Your task to perform on an android device: all mails in gmail Image 0: 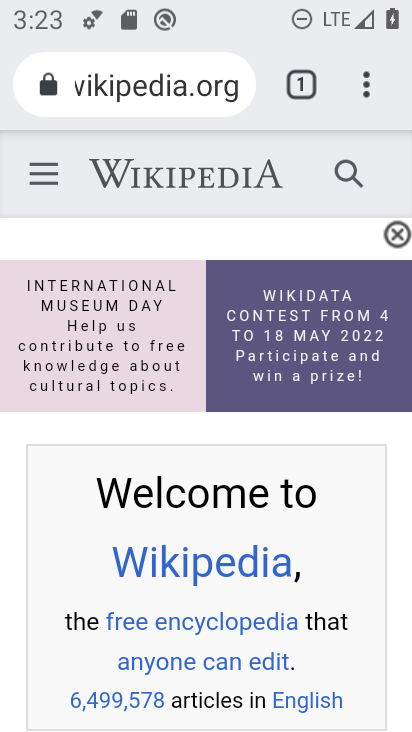
Step 0: press home button
Your task to perform on an android device: all mails in gmail Image 1: 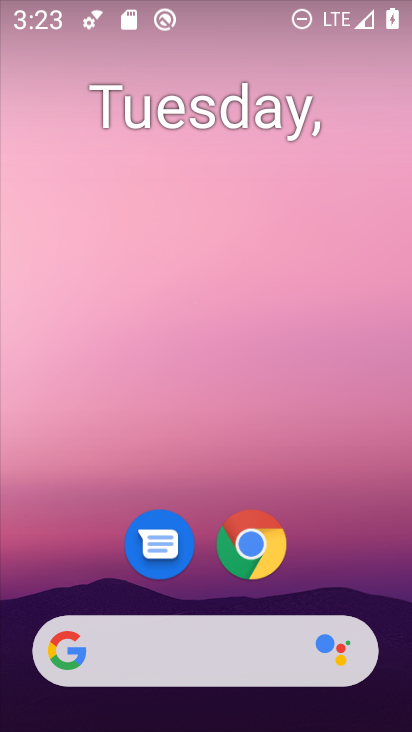
Step 1: drag from (366, 523) to (326, 102)
Your task to perform on an android device: all mails in gmail Image 2: 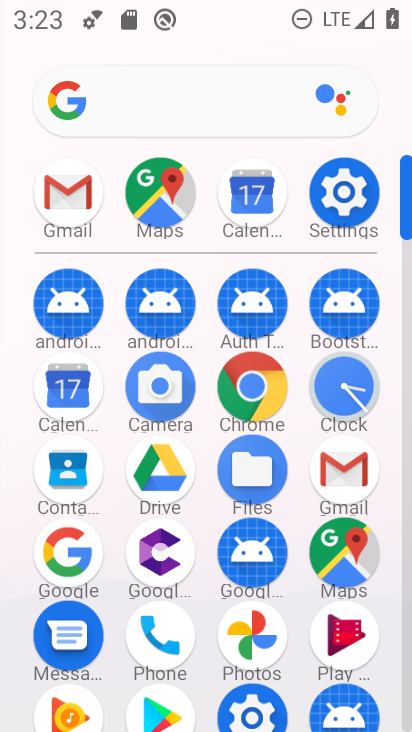
Step 2: click (357, 476)
Your task to perform on an android device: all mails in gmail Image 3: 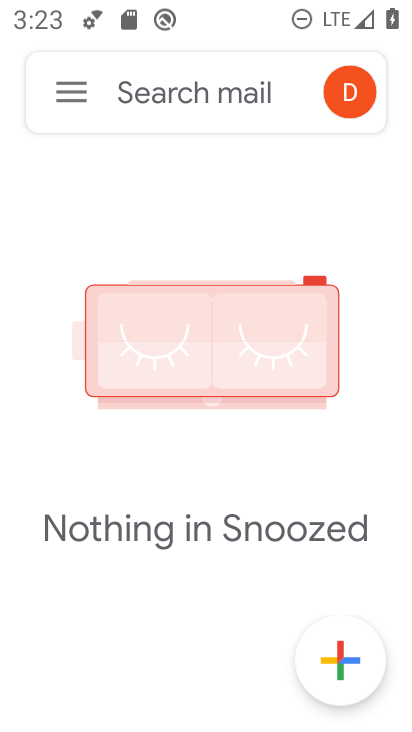
Step 3: click (75, 99)
Your task to perform on an android device: all mails in gmail Image 4: 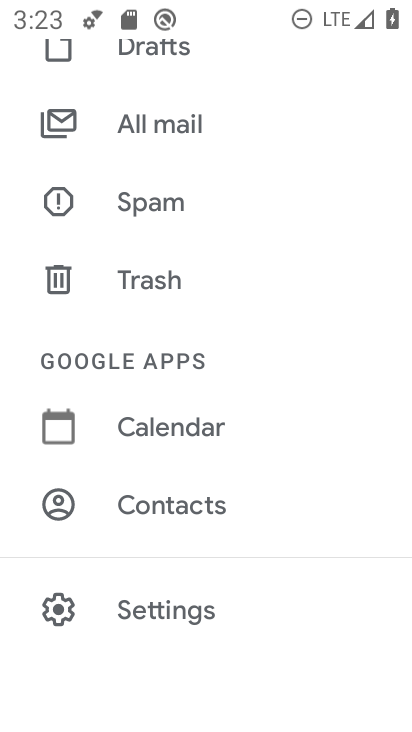
Step 4: drag from (316, 301) to (315, 410)
Your task to perform on an android device: all mails in gmail Image 5: 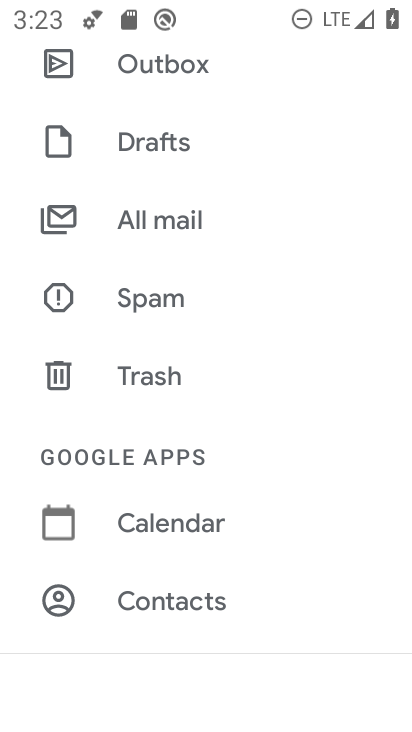
Step 5: drag from (323, 234) to (318, 348)
Your task to perform on an android device: all mails in gmail Image 6: 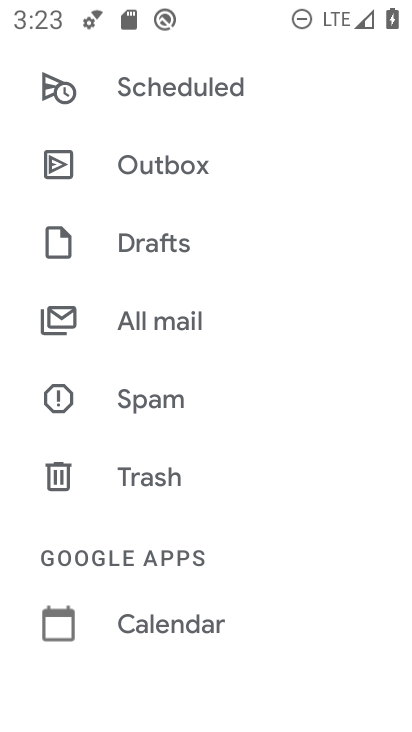
Step 6: drag from (322, 199) to (318, 337)
Your task to perform on an android device: all mails in gmail Image 7: 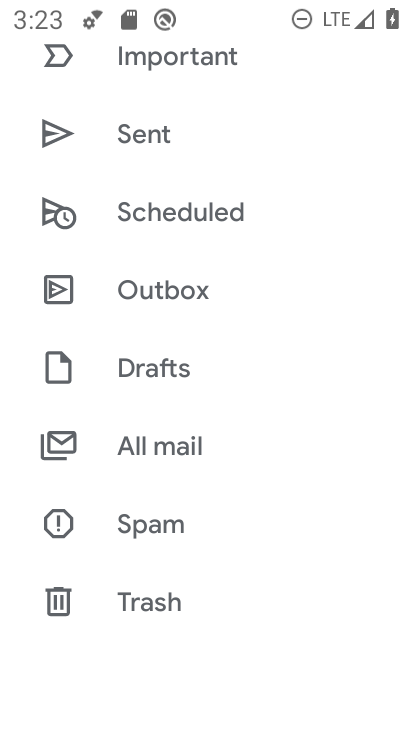
Step 7: drag from (314, 155) to (303, 285)
Your task to perform on an android device: all mails in gmail Image 8: 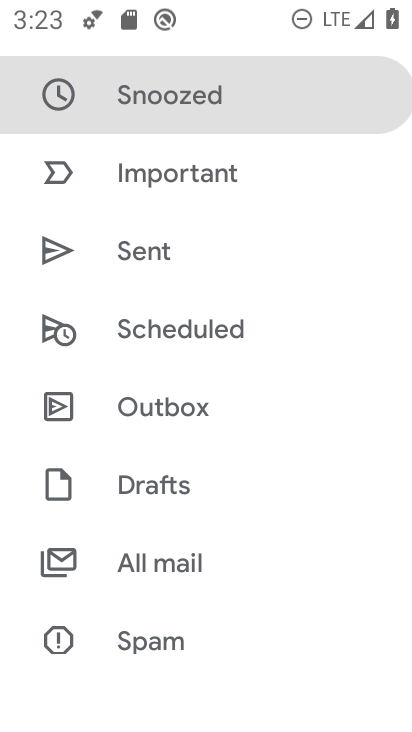
Step 8: drag from (305, 128) to (303, 284)
Your task to perform on an android device: all mails in gmail Image 9: 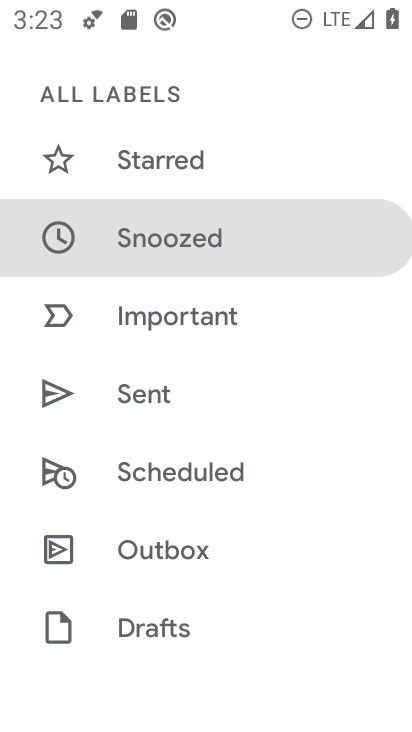
Step 9: drag from (310, 110) to (313, 248)
Your task to perform on an android device: all mails in gmail Image 10: 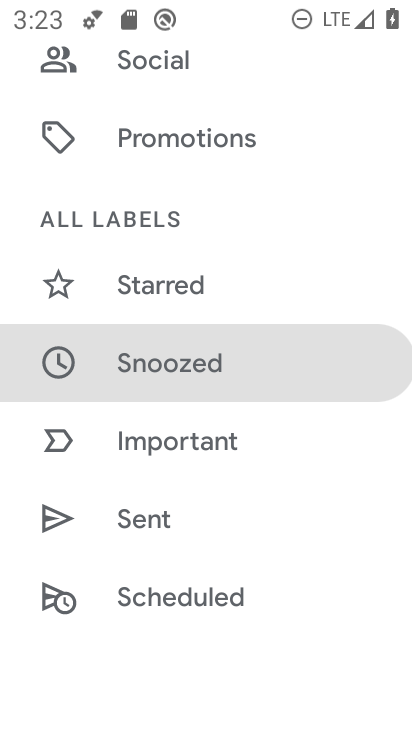
Step 10: drag from (312, 116) to (297, 276)
Your task to perform on an android device: all mails in gmail Image 11: 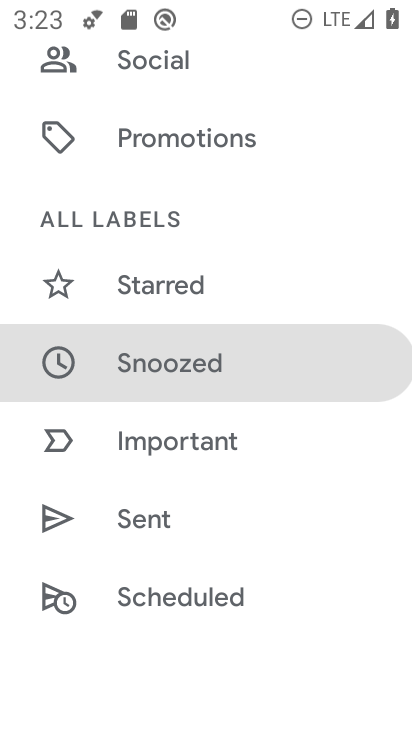
Step 11: drag from (305, 138) to (312, 292)
Your task to perform on an android device: all mails in gmail Image 12: 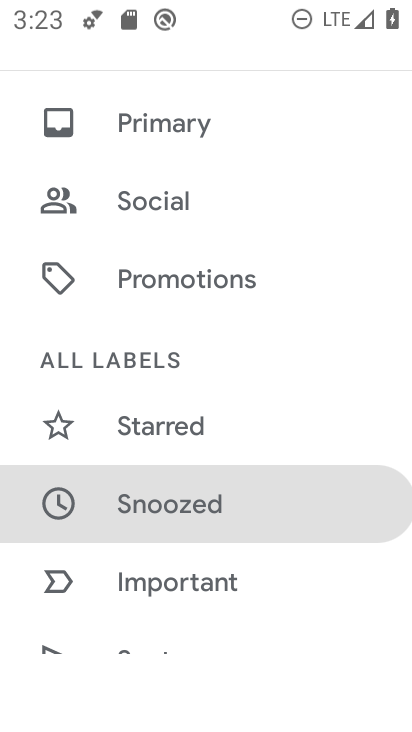
Step 12: drag from (339, 156) to (339, 359)
Your task to perform on an android device: all mails in gmail Image 13: 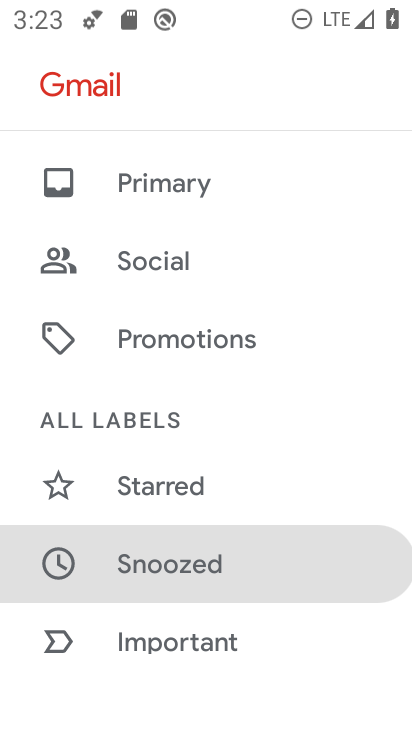
Step 13: drag from (320, 157) to (317, 373)
Your task to perform on an android device: all mails in gmail Image 14: 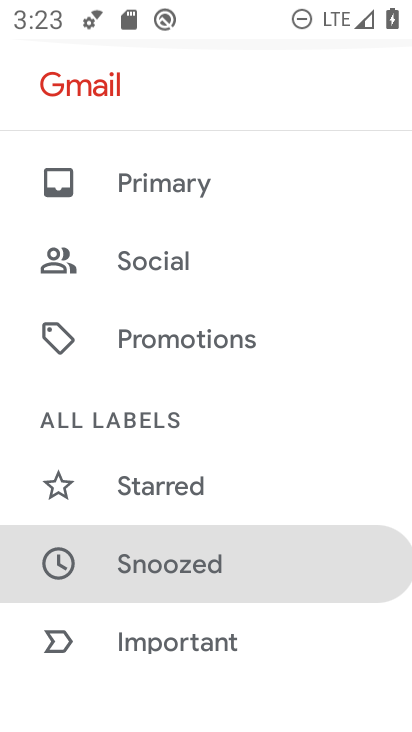
Step 14: drag from (320, 457) to (320, 305)
Your task to perform on an android device: all mails in gmail Image 15: 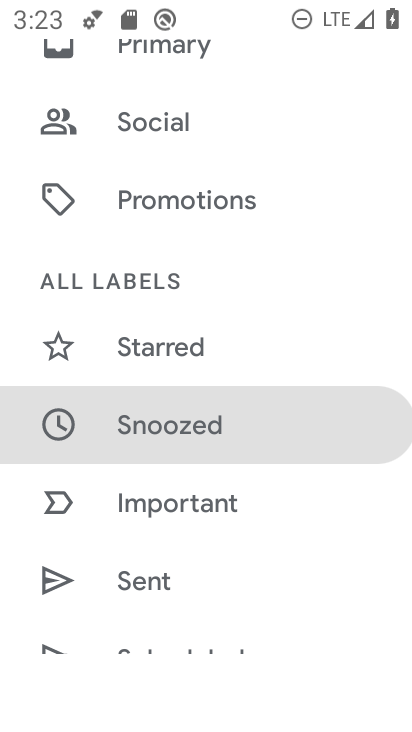
Step 15: drag from (304, 462) to (303, 282)
Your task to perform on an android device: all mails in gmail Image 16: 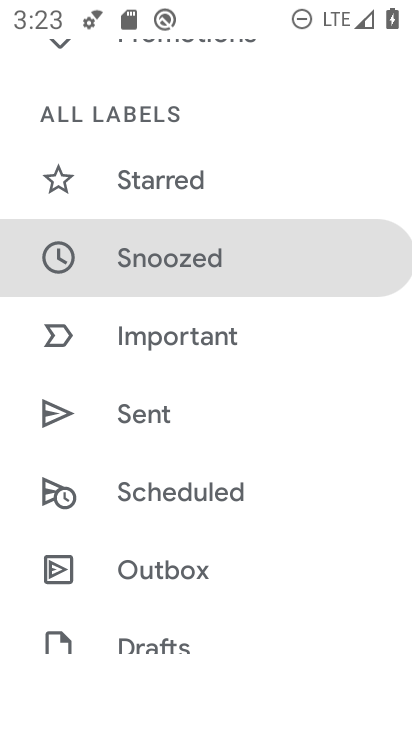
Step 16: drag from (322, 487) to (321, 363)
Your task to perform on an android device: all mails in gmail Image 17: 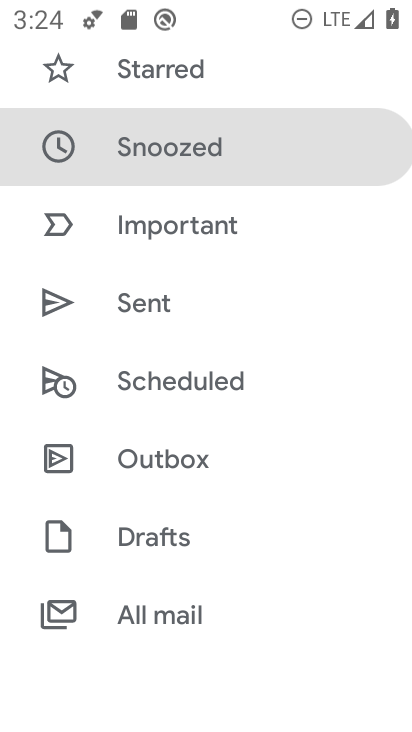
Step 17: drag from (311, 518) to (310, 396)
Your task to perform on an android device: all mails in gmail Image 18: 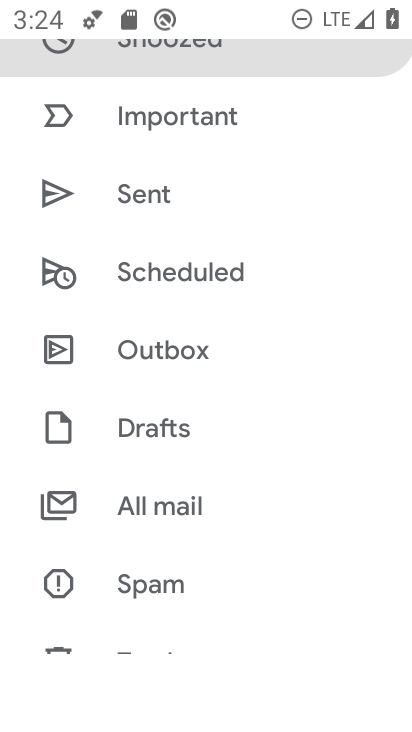
Step 18: drag from (269, 537) to (283, 433)
Your task to perform on an android device: all mails in gmail Image 19: 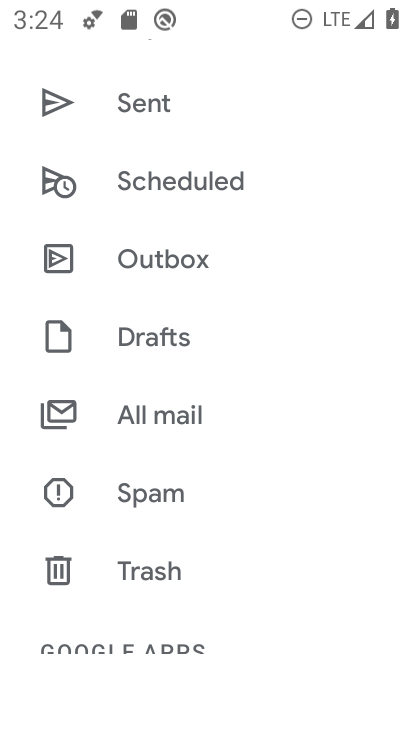
Step 19: click (172, 416)
Your task to perform on an android device: all mails in gmail Image 20: 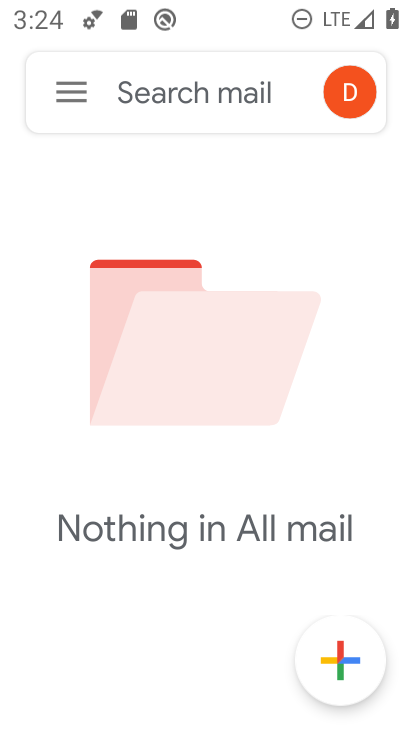
Step 20: task complete